Your task to perform on an android device: toggle priority inbox in the gmail app Image 0: 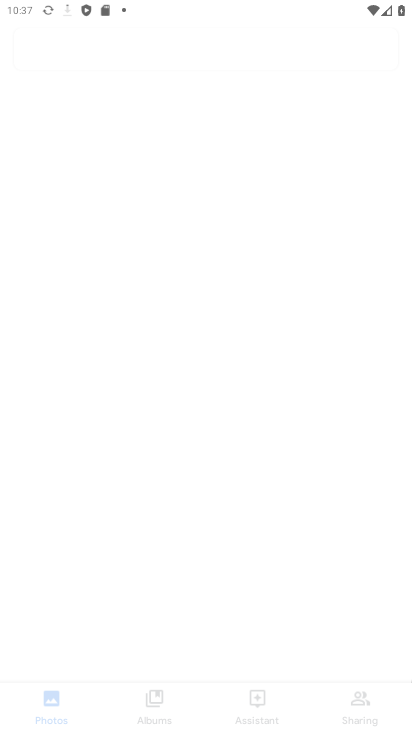
Step 0: press home button
Your task to perform on an android device: toggle priority inbox in the gmail app Image 1: 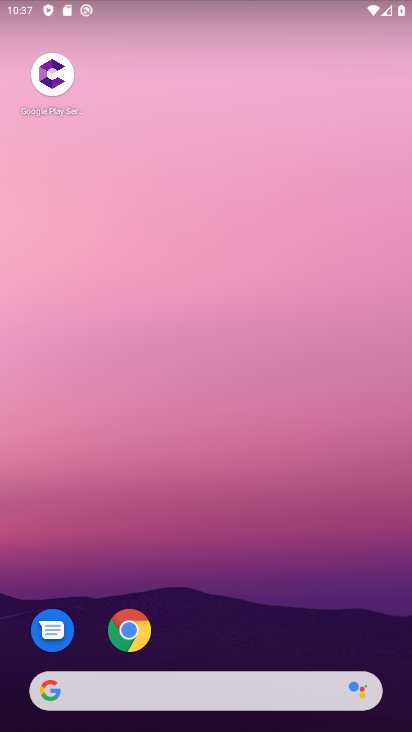
Step 1: drag from (390, 684) to (230, 98)
Your task to perform on an android device: toggle priority inbox in the gmail app Image 2: 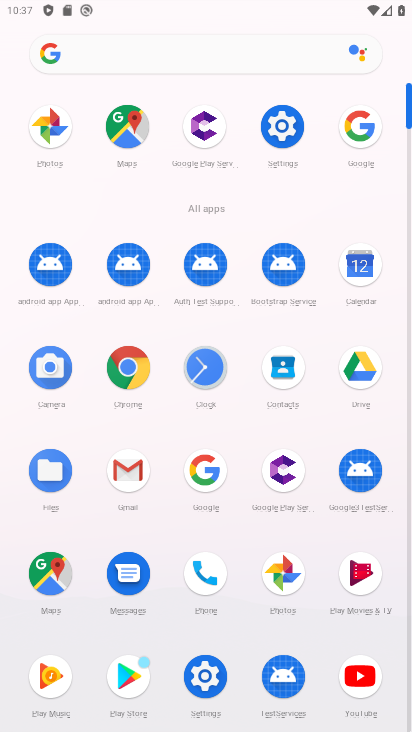
Step 2: click (142, 468)
Your task to perform on an android device: toggle priority inbox in the gmail app Image 3: 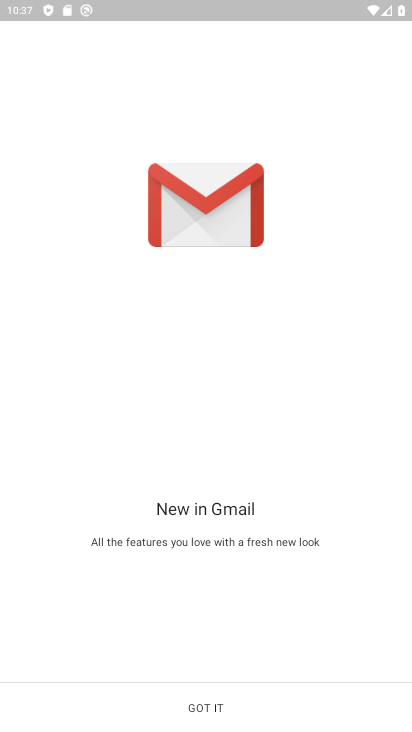
Step 3: click (210, 712)
Your task to perform on an android device: toggle priority inbox in the gmail app Image 4: 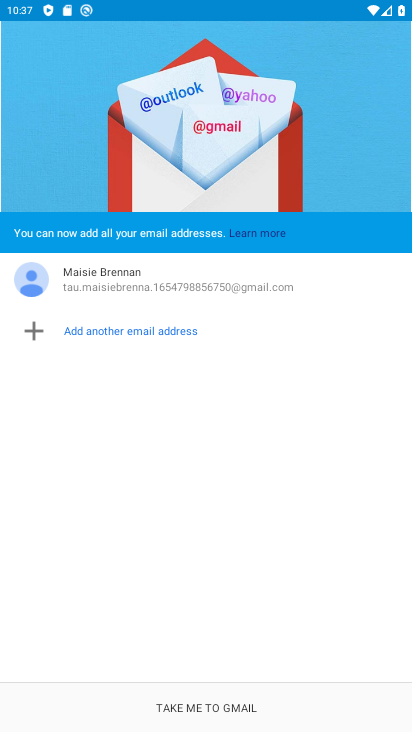
Step 4: click (210, 712)
Your task to perform on an android device: toggle priority inbox in the gmail app Image 5: 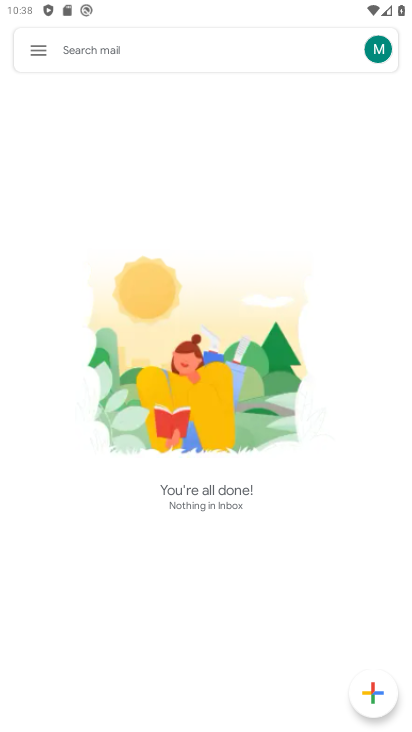
Step 5: click (28, 47)
Your task to perform on an android device: toggle priority inbox in the gmail app Image 6: 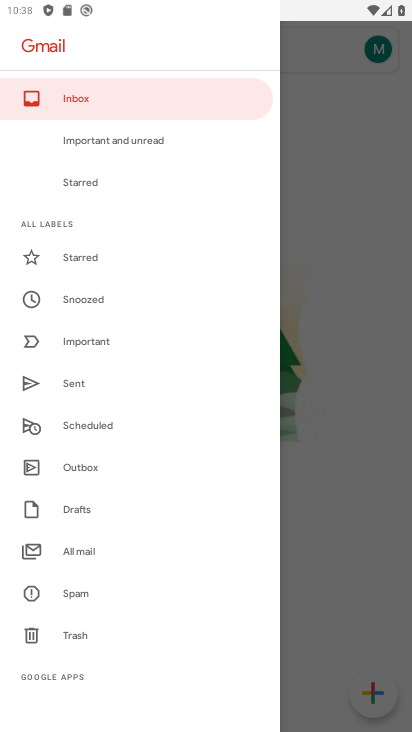
Step 6: drag from (104, 652) to (153, 174)
Your task to perform on an android device: toggle priority inbox in the gmail app Image 7: 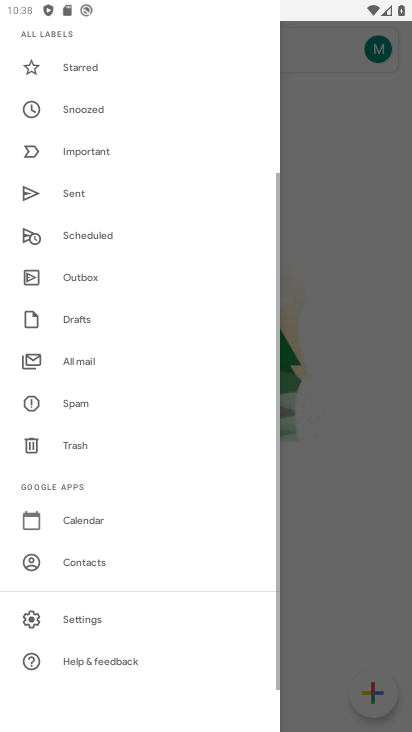
Step 7: click (66, 611)
Your task to perform on an android device: toggle priority inbox in the gmail app Image 8: 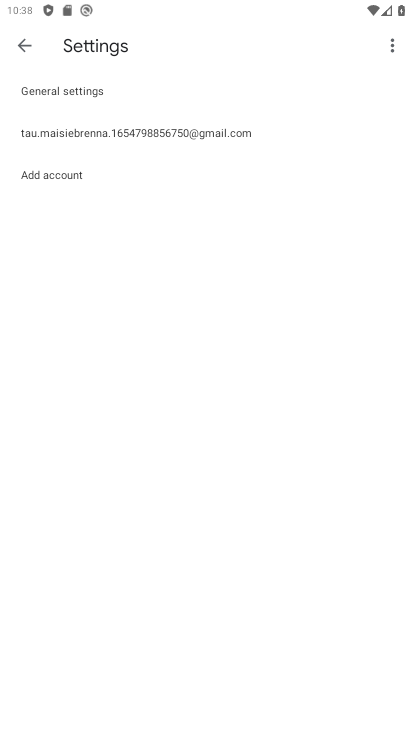
Step 8: click (77, 137)
Your task to perform on an android device: toggle priority inbox in the gmail app Image 9: 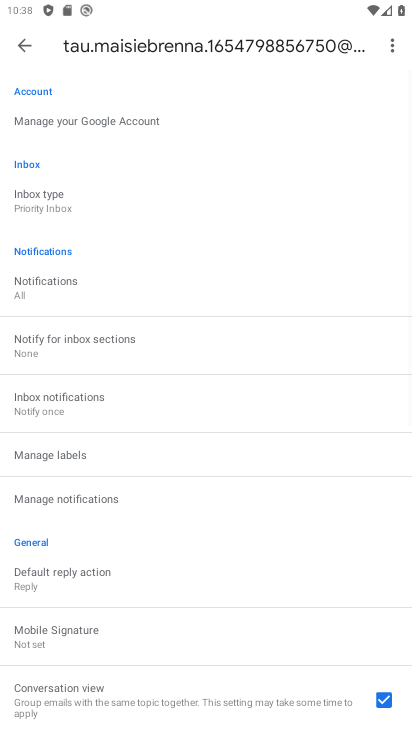
Step 9: click (63, 207)
Your task to perform on an android device: toggle priority inbox in the gmail app Image 10: 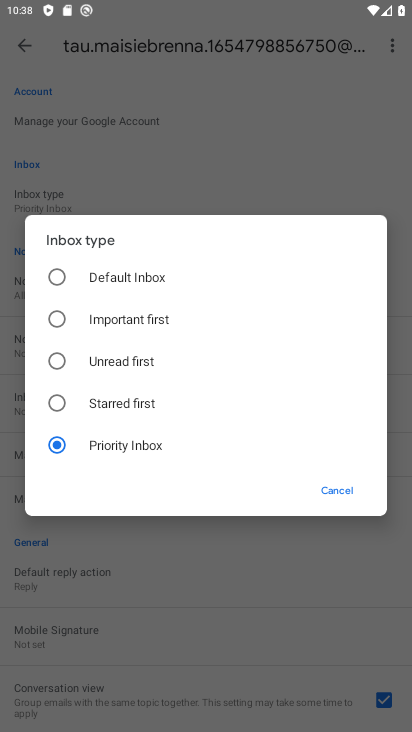
Step 10: click (109, 279)
Your task to perform on an android device: toggle priority inbox in the gmail app Image 11: 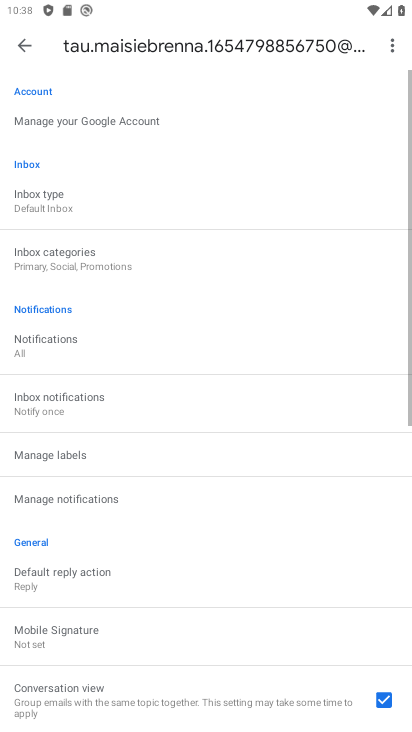
Step 11: task complete